Your task to perform on an android device: Open settings Image 0: 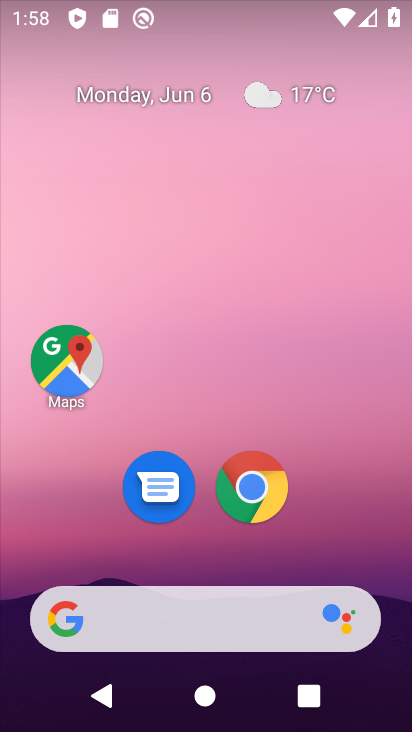
Step 0: drag from (272, 477) to (345, 46)
Your task to perform on an android device: Open settings Image 1: 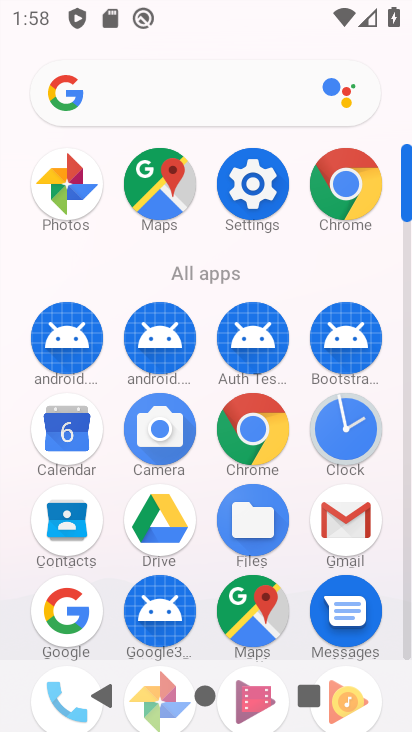
Step 1: click (241, 184)
Your task to perform on an android device: Open settings Image 2: 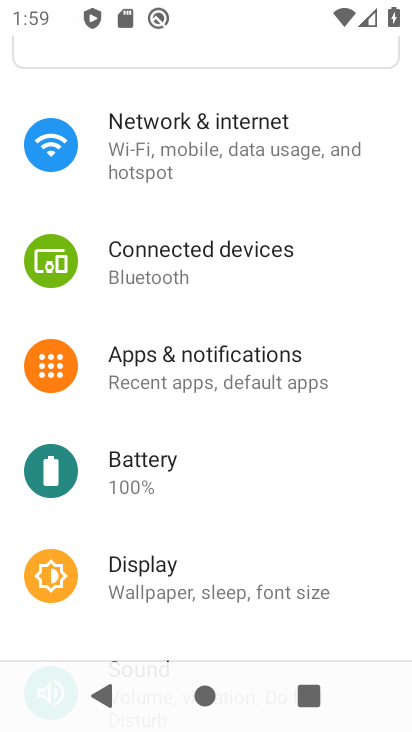
Step 2: task complete